Your task to perform on an android device: Open Chrome and go to settings Image 0: 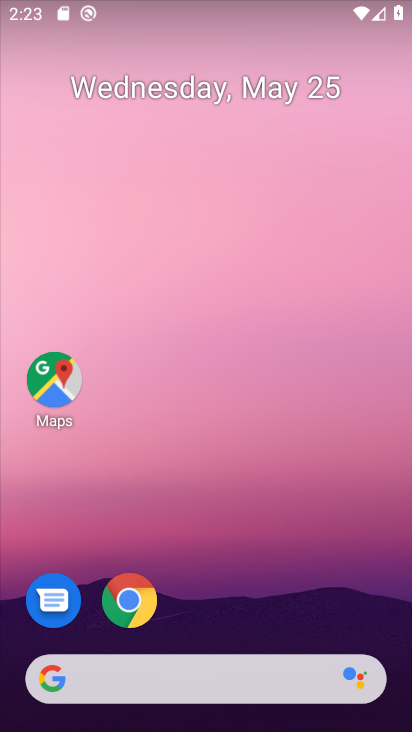
Step 0: click (141, 611)
Your task to perform on an android device: Open Chrome and go to settings Image 1: 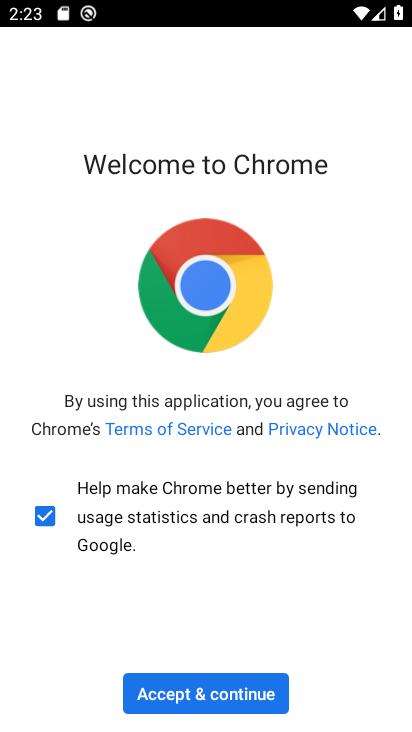
Step 1: click (194, 697)
Your task to perform on an android device: Open Chrome and go to settings Image 2: 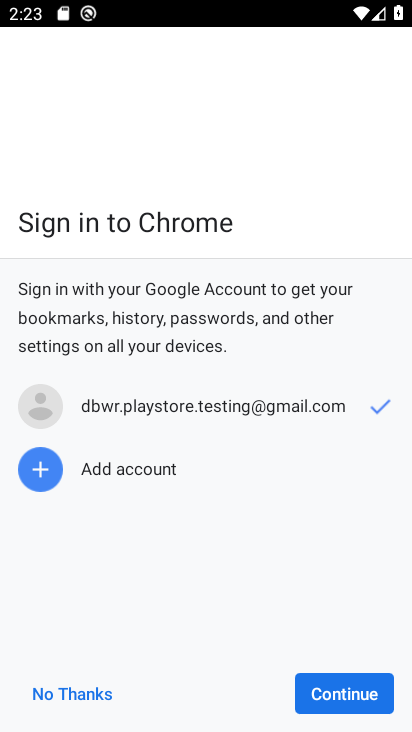
Step 2: click (376, 689)
Your task to perform on an android device: Open Chrome and go to settings Image 3: 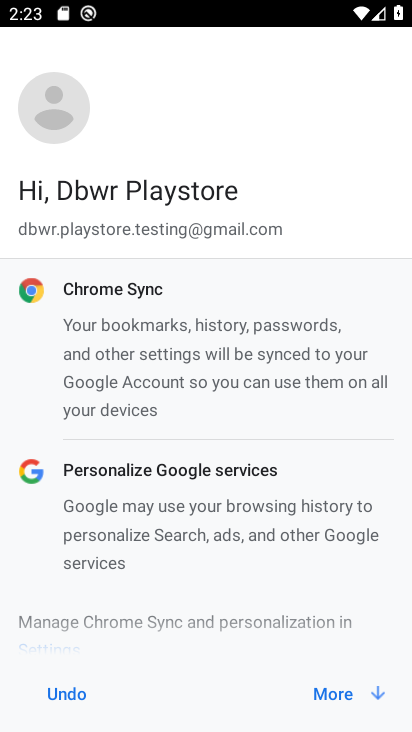
Step 3: click (348, 688)
Your task to perform on an android device: Open Chrome and go to settings Image 4: 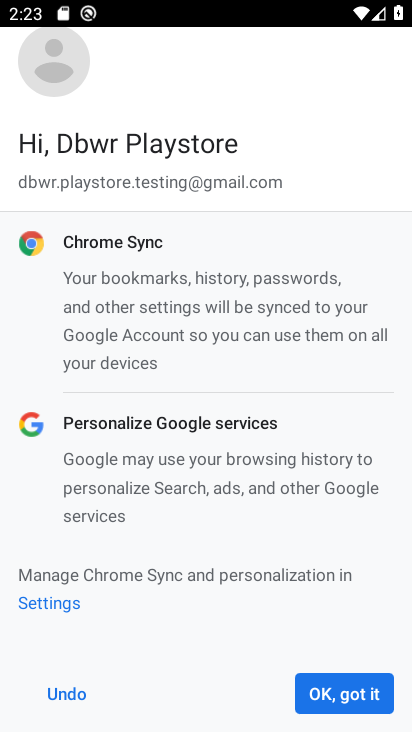
Step 4: click (348, 688)
Your task to perform on an android device: Open Chrome and go to settings Image 5: 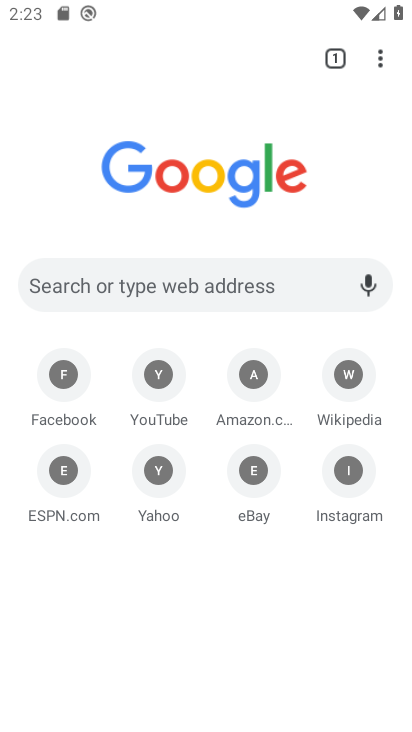
Step 5: task complete